Your task to perform on an android device: Open the calendar and show me this week's events Image 0: 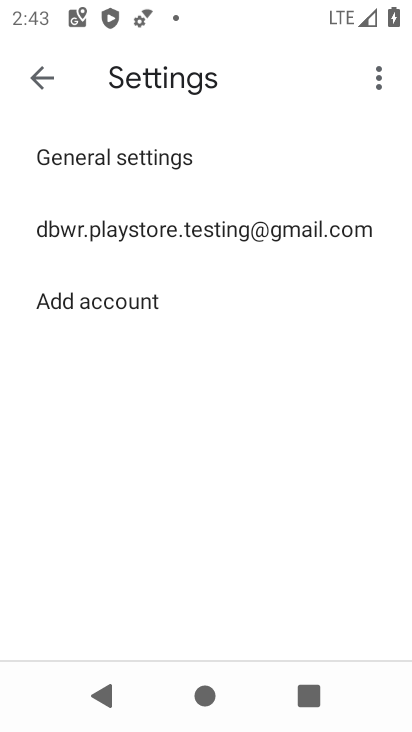
Step 0: press home button
Your task to perform on an android device: Open the calendar and show me this week's events Image 1: 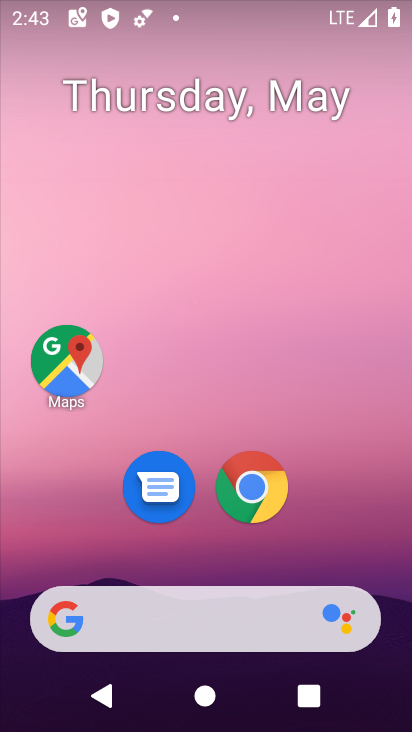
Step 1: drag from (228, 650) to (285, 148)
Your task to perform on an android device: Open the calendar and show me this week's events Image 2: 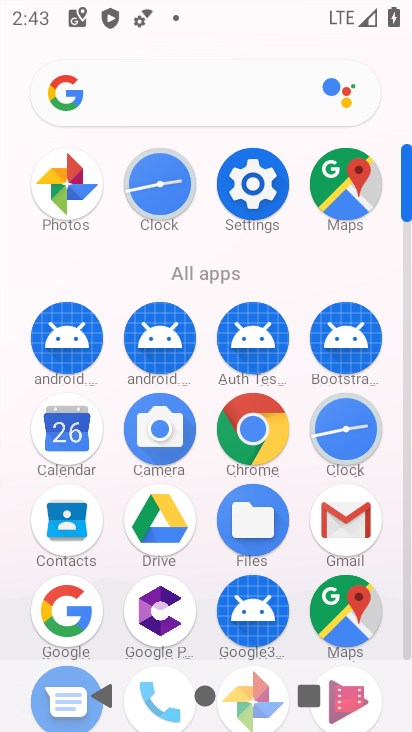
Step 2: click (76, 445)
Your task to perform on an android device: Open the calendar and show me this week's events Image 3: 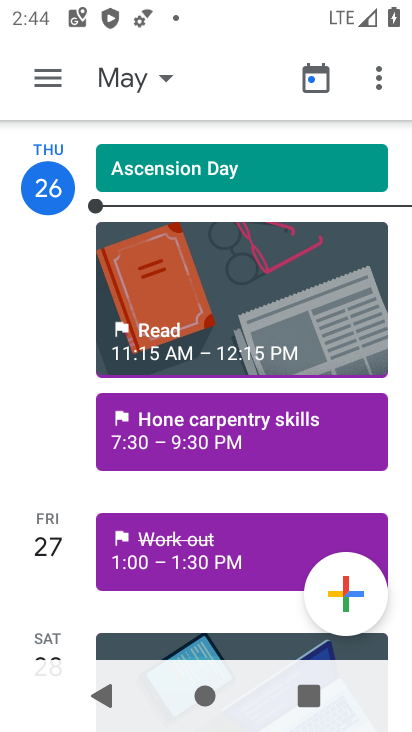
Step 3: task complete